Your task to perform on an android device: delete the emails in spam in the gmail app Image 0: 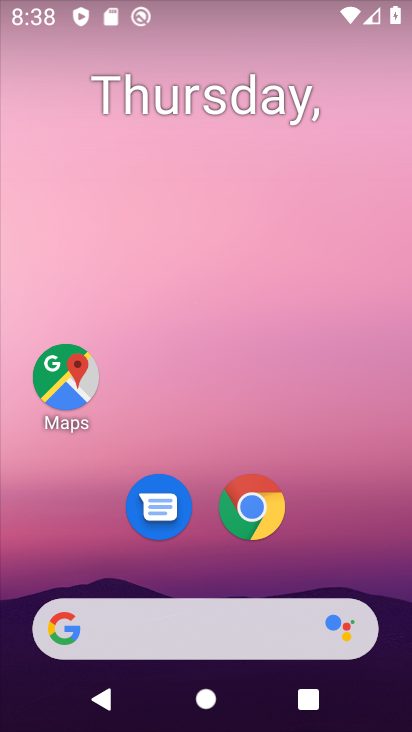
Step 0: drag from (207, 558) to (160, 15)
Your task to perform on an android device: delete the emails in spam in the gmail app Image 1: 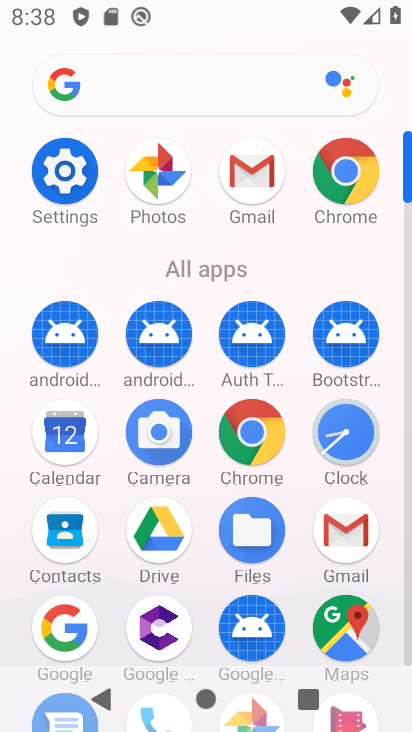
Step 1: click (340, 535)
Your task to perform on an android device: delete the emails in spam in the gmail app Image 2: 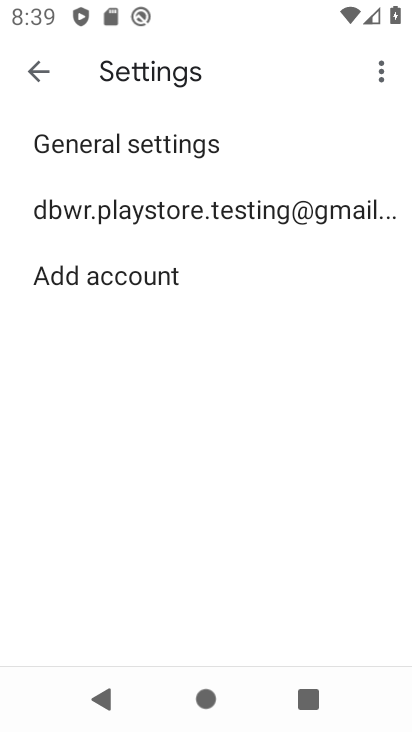
Step 2: click (36, 64)
Your task to perform on an android device: delete the emails in spam in the gmail app Image 3: 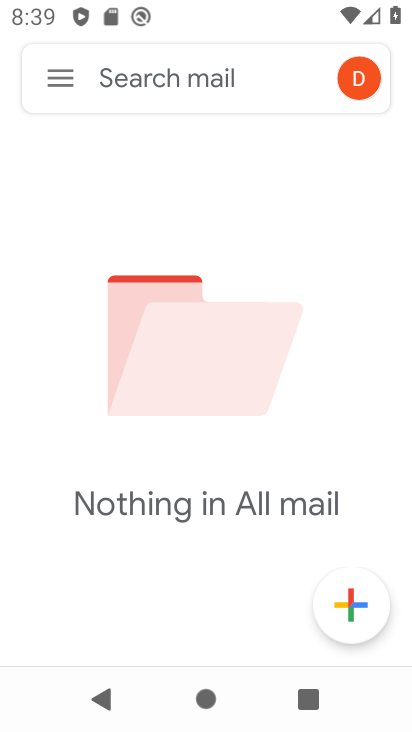
Step 3: click (64, 76)
Your task to perform on an android device: delete the emails in spam in the gmail app Image 4: 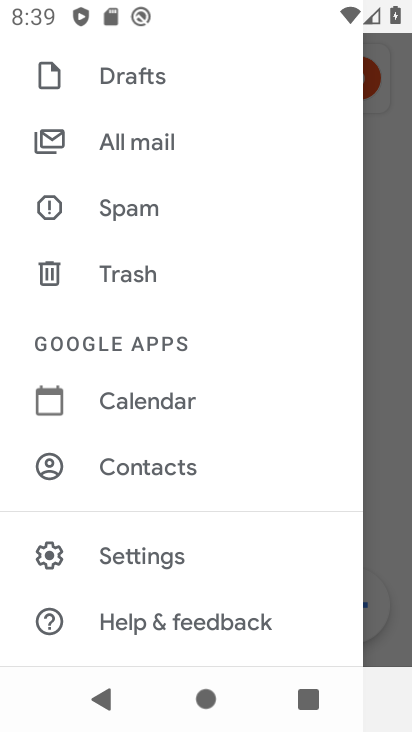
Step 4: click (118, 202)
Your task to perform on an android device: delete the emails in spam in the gmail app Image 5: 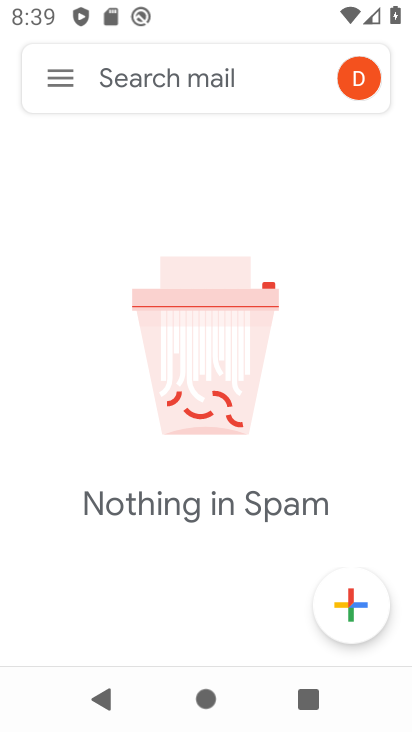
Step 5: task complete